Your task to perform on an android device: find photos in the google photos app Image 0: 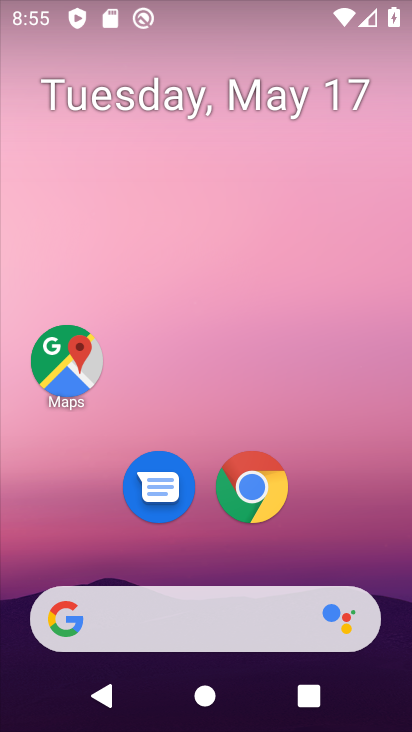
Step 0: press home button
Your task to perform on an android device: find photos in the google photos app Image 1: 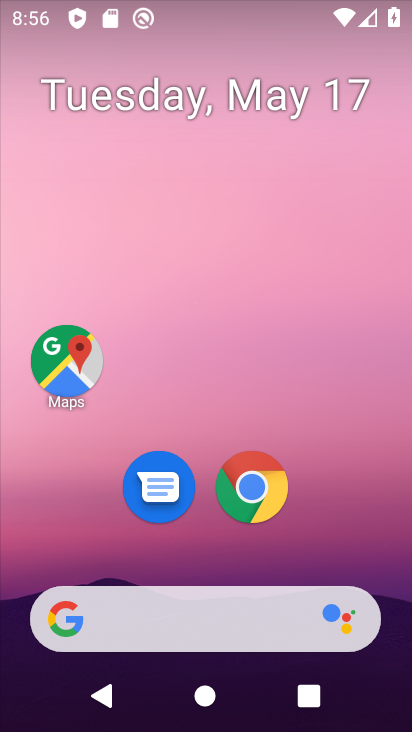
Step 1: drag from (268, 645) to (308, 269)
Your task to perform on an android device: find photos in the google photos app Image 2: 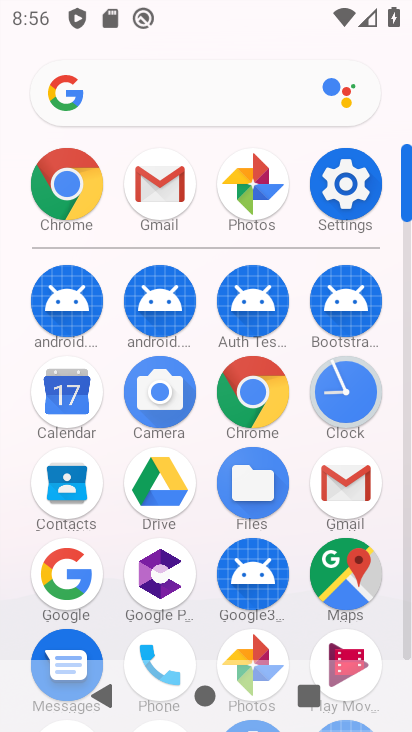
Step 2: click (252, 644)
Your task to perform on an android device: find photos in the google photos app Image 3: 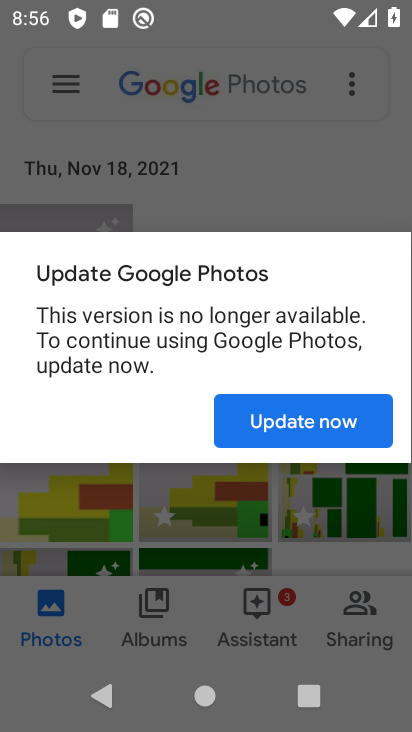
Step 3: click (283, 414)
Your task to perform on an android device: find photos in the google photos app Image 4: 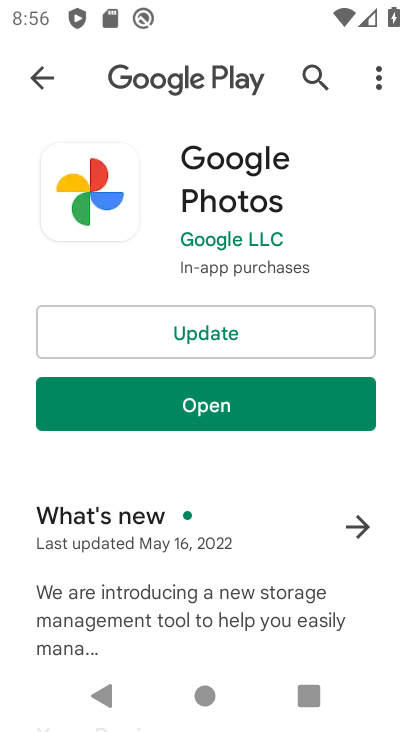
Step 4: click (176, 411)
Your task to perform on an android device: find photos in the google photos app Image 5: 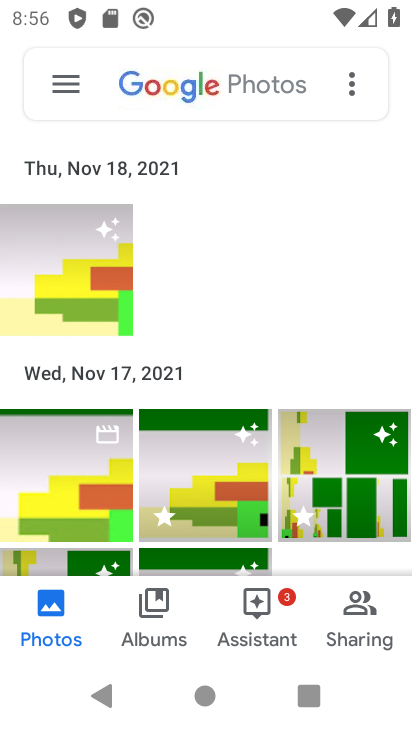
Step 5: task complete